Your task to perform on an android device: clear history in the chrome app Image 0: 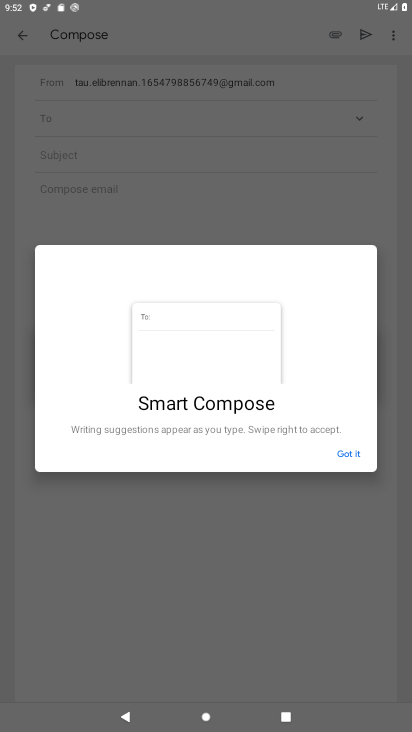
Step 0: press home button
Your task to perform on an android device: clear history in the chrome app Image 1: 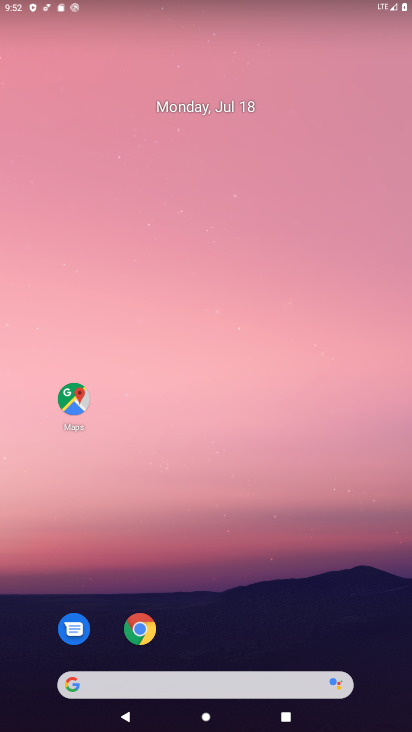
Step 1: click (142, 630)
Your task to perform on an android device: clear history in the chrome app Image 2: 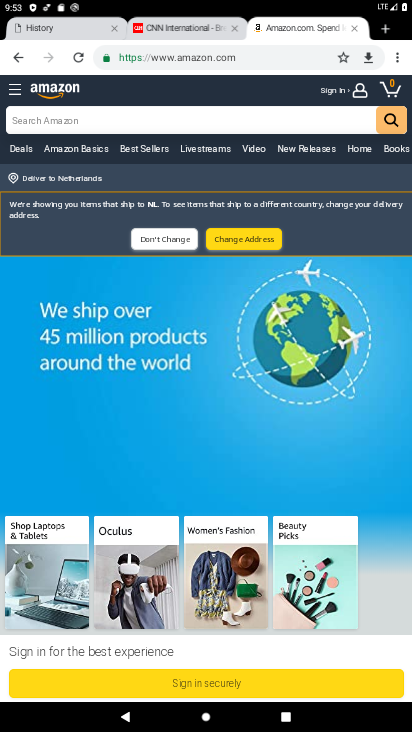
Step 2: drag from (396, 56) to (303, 173)
Your task to perform on an android device: clear history in the chrome app Image 3: 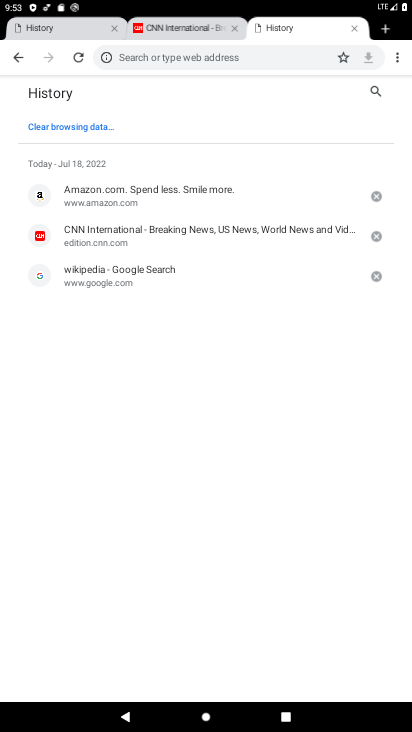
Step 3: click (46, 120)
Your task to perform on an android device: clear history in the chrome app Image 4: 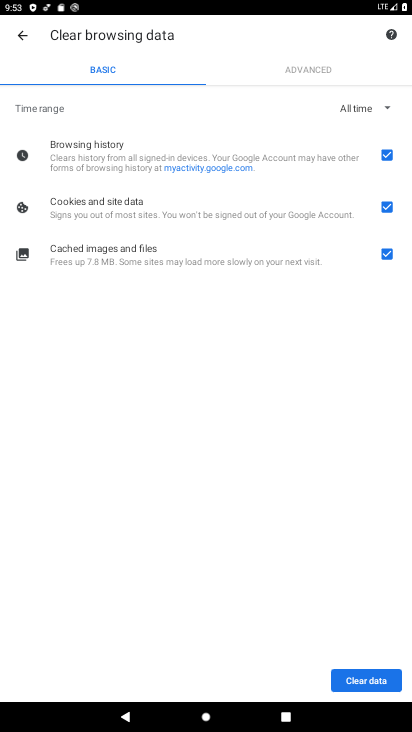
Step 4: click (347, 674)
Your task to perform on an android device: clear history in the chrome app Image 5: 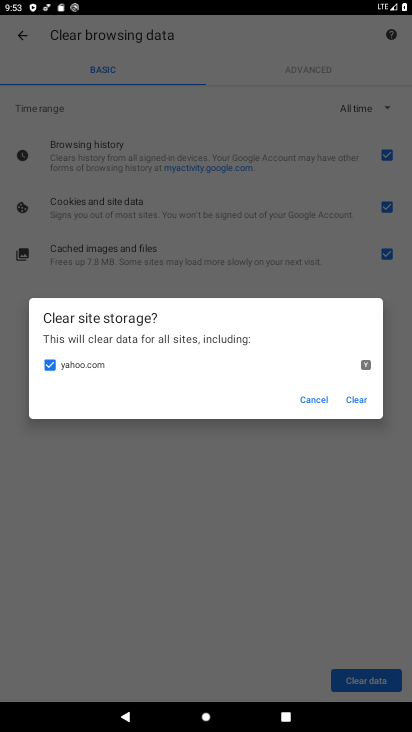
Step 5: click (357, 402)
Your task to perform on an android device: clear history in the chrome app Image 6: 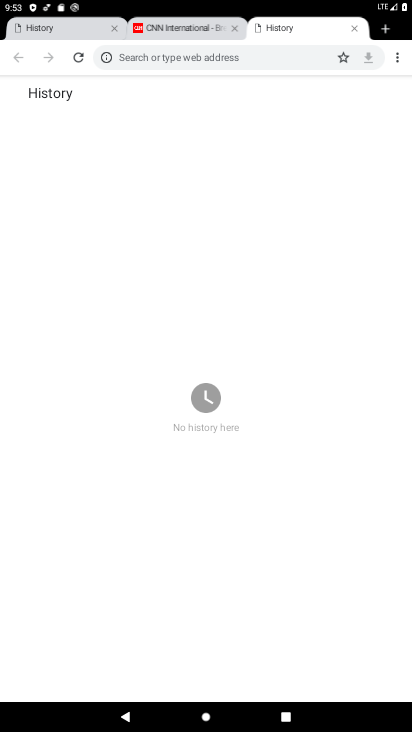
Step 6: task complete